Your task to perform on an android device: Open wifi settings Image 0: 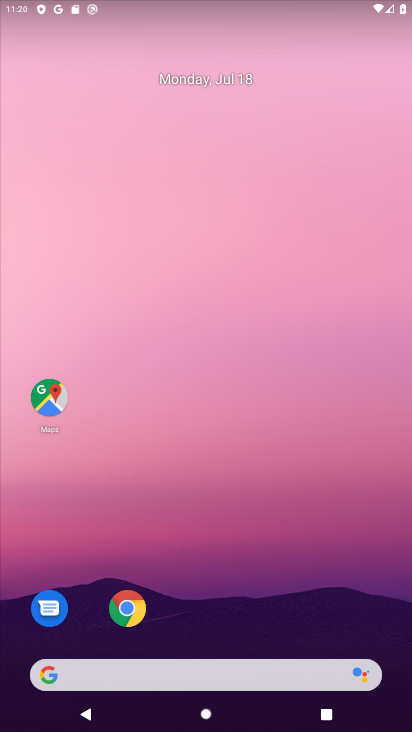
Step 0: drag from (239, 599) to (218, 203)
Your task to perform on an android device: Open wifi settings Image 1: 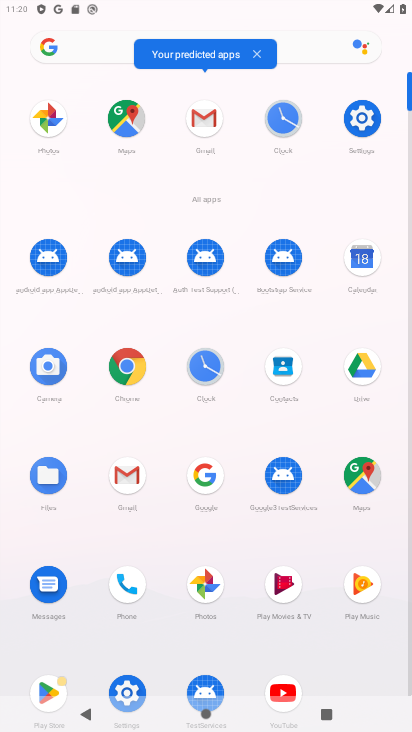
Step 1: click (375, 108)
Your task to perform on an android device: Open wifi settings Image 2: 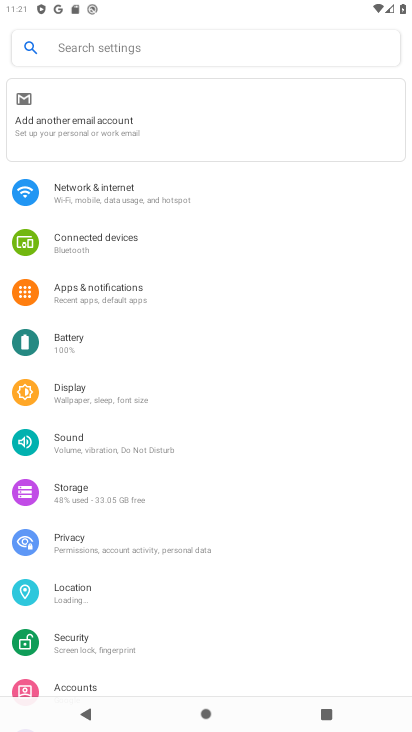
Step 2: click (150, 190)
Your task to perform on an android device: Open wifi settings Image 3: 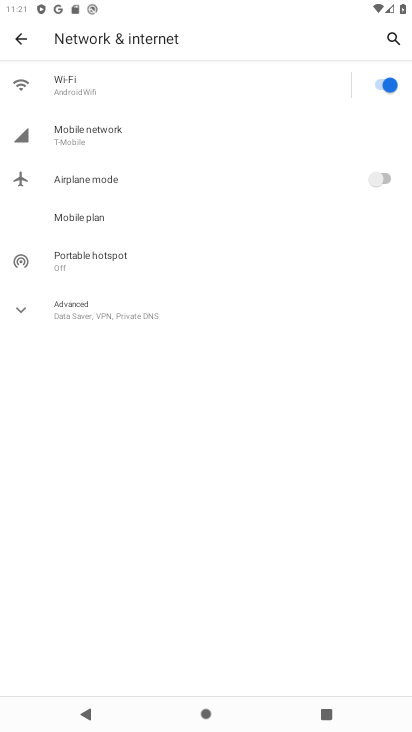
Step 3: click (46, 92)
Your task to perform on an android device: Open wifi settings Image 4: 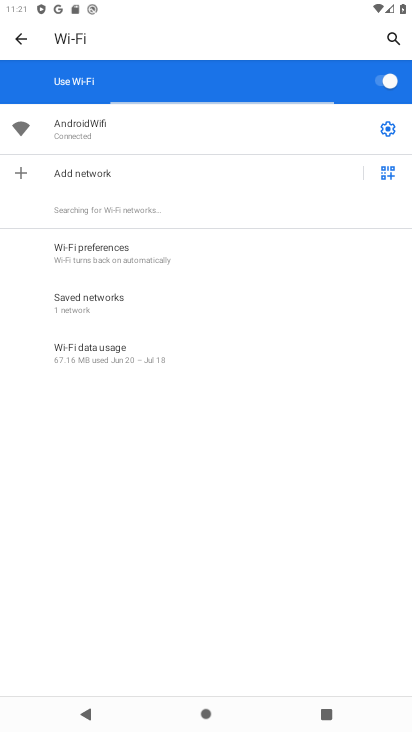
Step 4: task complete